Your task to perform on an android device: make emails show in primary in the gmail app Image 0: 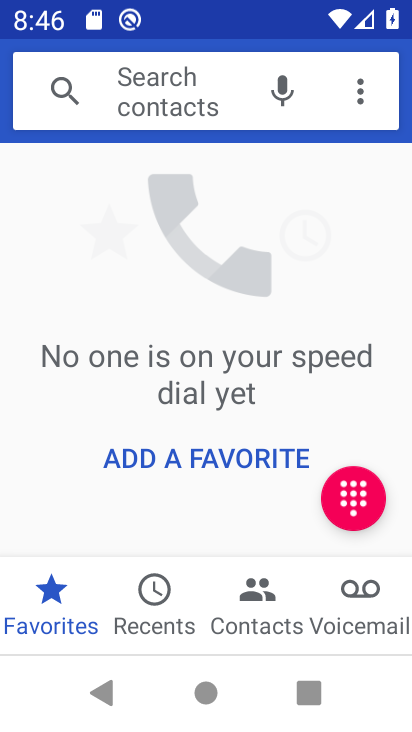
Step 0: press home button
Your task to perform on an android device: make emails show in primary in the gmail app Image 1: 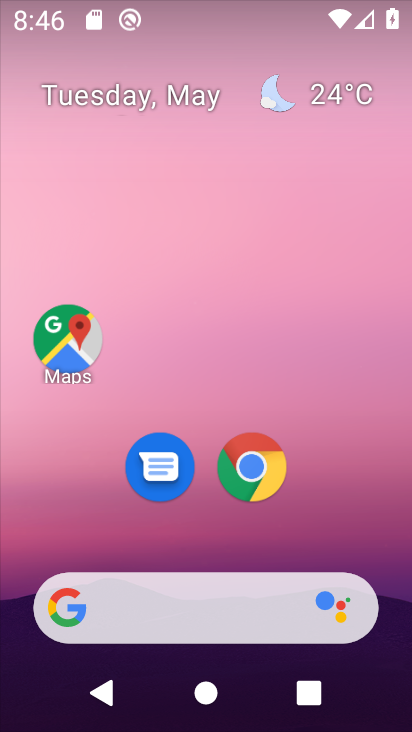
Step 1: drag from (399, 691) to (370, 277)
Your task to perform on an android device: make emails show in primary in the gmail app Image 2: 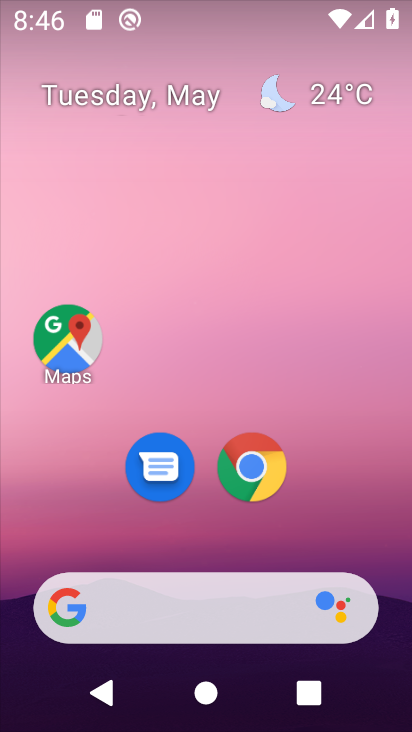
Step 2: drag from (380, 704) to (386, 265)
Your task to perform on an android device: make emails show in primary in the gmail app Image 3: 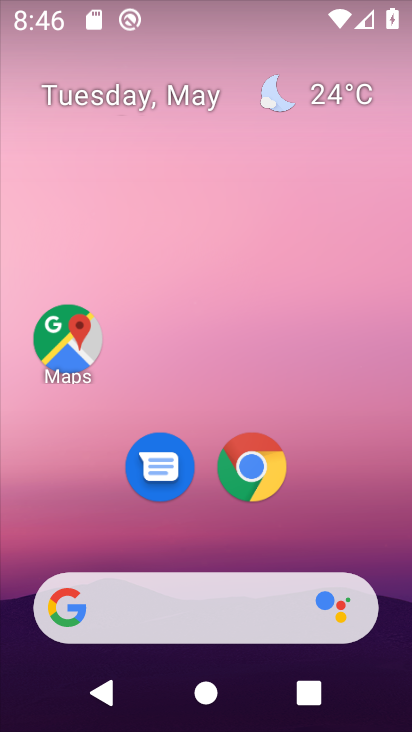
Step 3: click (369, 221)
Your task to perform on an android device: make emails show in primary in the gmail app Image 4: 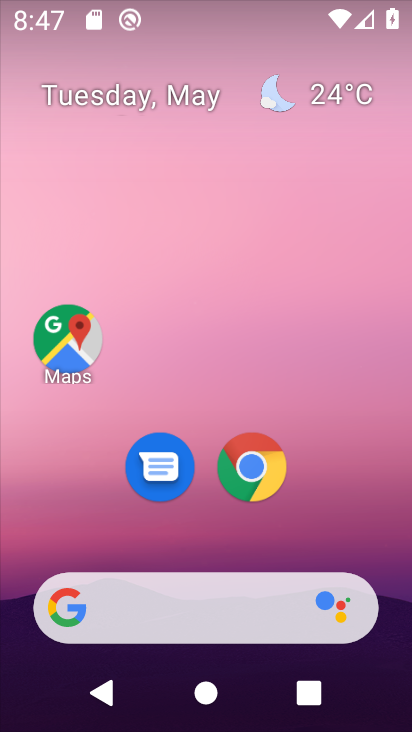
Step 4: drag from (386, 651) to (408, 282)
Your task to perform on an android device: make emails show in primary in the gmail app Image 5: 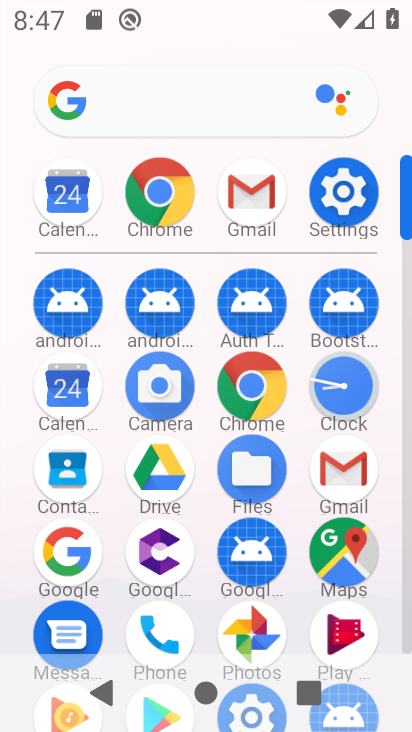
Step 5: click (236, 199)
Your task to perform on an android device: make emails show in primary in the gmail app Image 6: 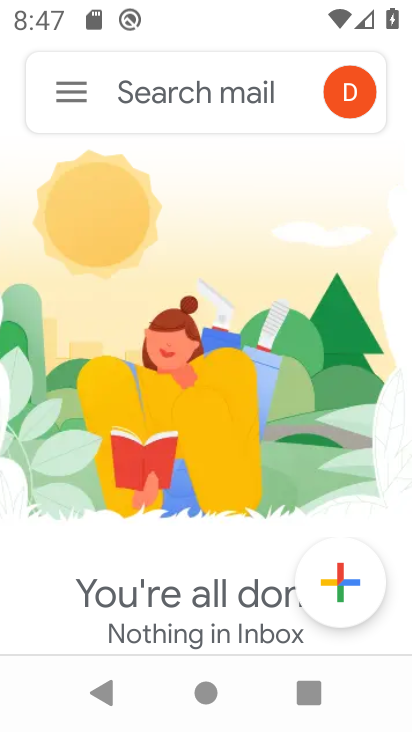
Step 6: click (62, 87)
Your task to perform on an android device: make emails show in primary in the gmail app Image 7: 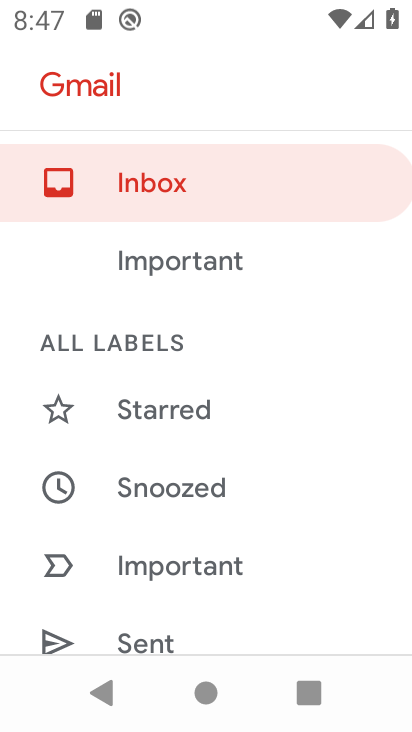
Step 7: drag from (300, 594) to (292, 228)
Your task to perform on an android device: make emails show in primary in the gmail app Image 8: 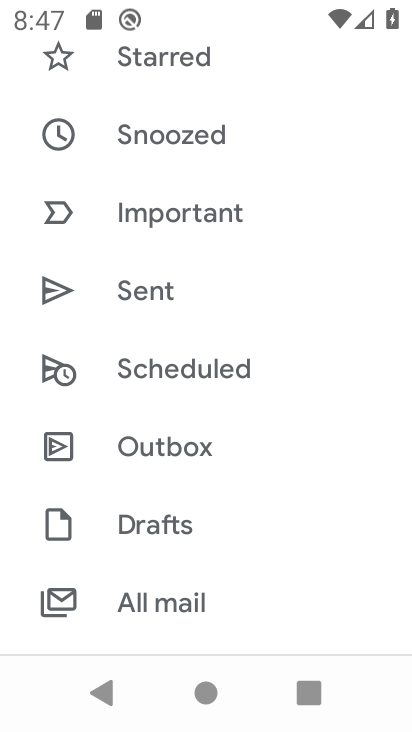
Step 8: drag from (303, 628) to (301, 267)
Your task to perform on an android device: make emails show in primary in the gmail app Image 9: 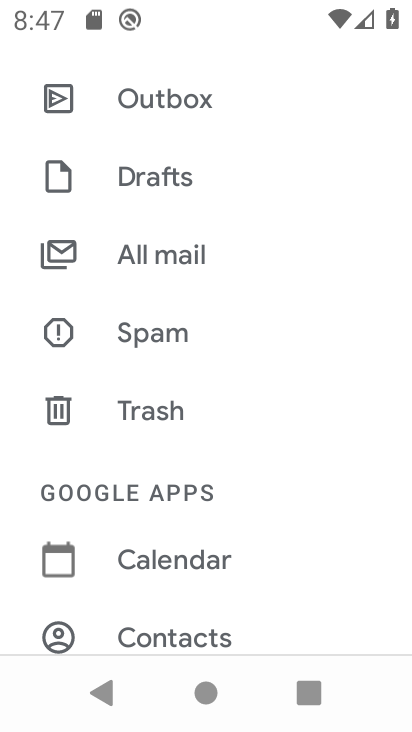
Step 9: drag from (290, 617) to (242, 177)
Your task to perform on an android device: make emails show in primary in the gmail app Image 10: 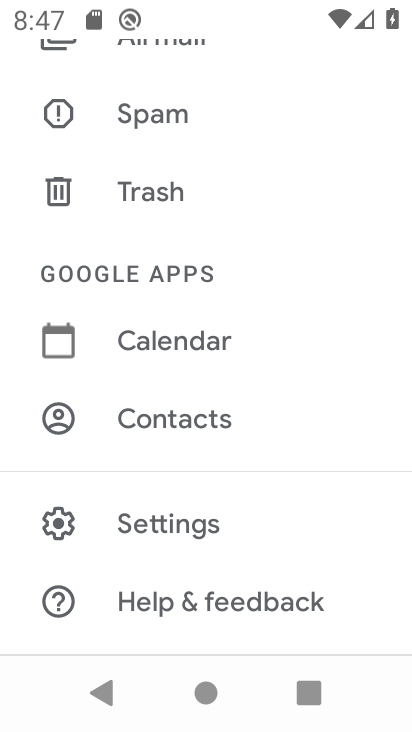
Step 10: click (189, 514)
Your task to perform on an android device: make emails show in primary in the gmail app Image 11: 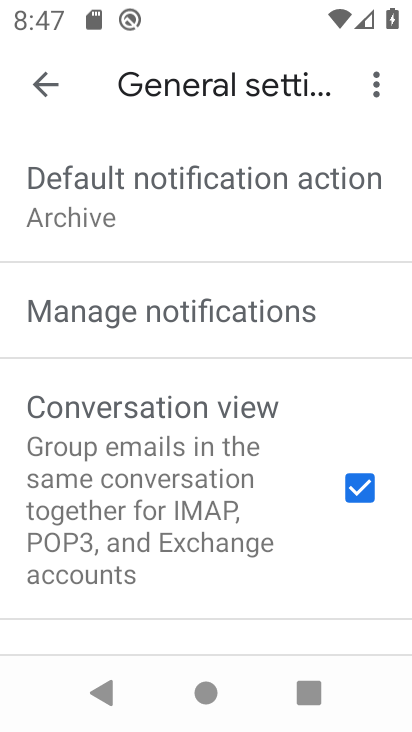
Step 11: click (48, 77)
Your task to perform on an android device: make emails show in primary in the gmail app Image 12: 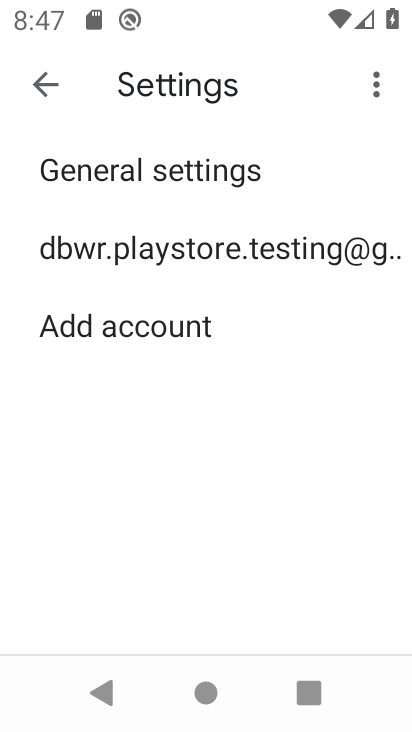
Step 12: click (107, 252)
Your task to perform on an android device: make emails show in primary in the gmail app Image 13: 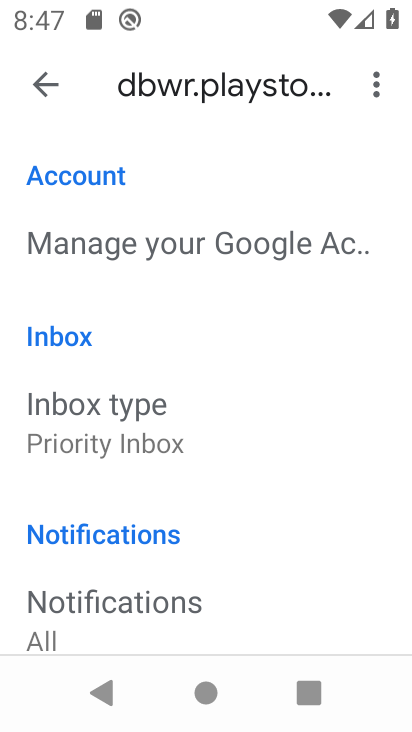
Step 13: click (81, 412)
Your task to perform on an android device: make emails show in primary in the gmail app Image 14: 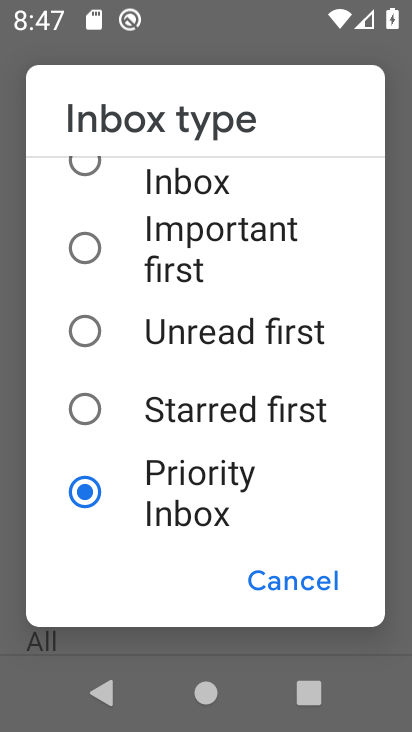
Step 14: drag from (139, 188) to (80, 547)
Your task to perform on an android device: make emails show in primary in the gmail app Image 15: 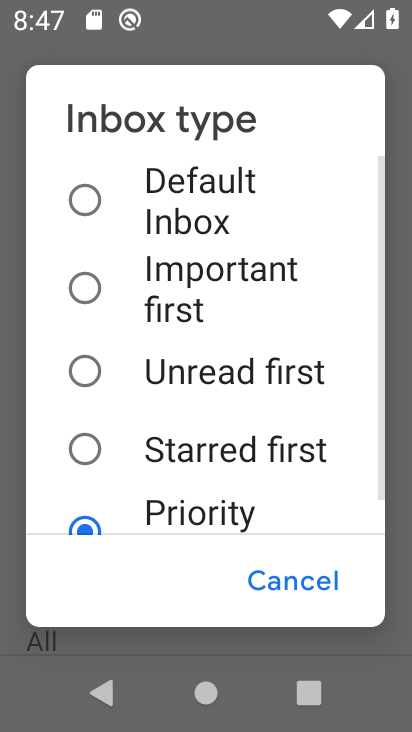
Step 15: click (88, 197)
Your task to perform on an android device: make emails show in primary in the gmail app Image 16: 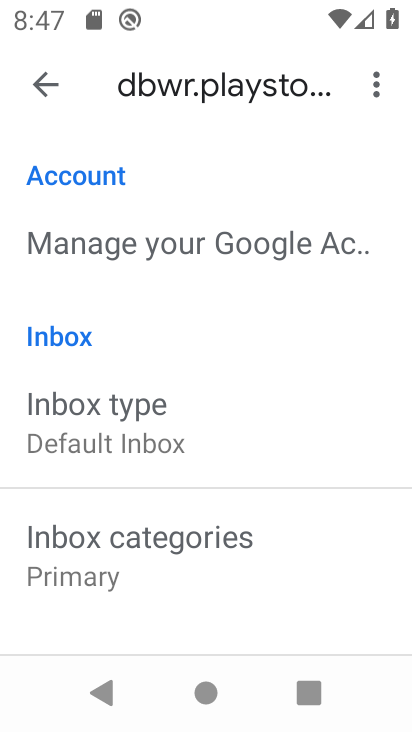
Step 16: click (83, 439)
Your task to perform on an android device: make emails show in primary in the gmail app Image 17: 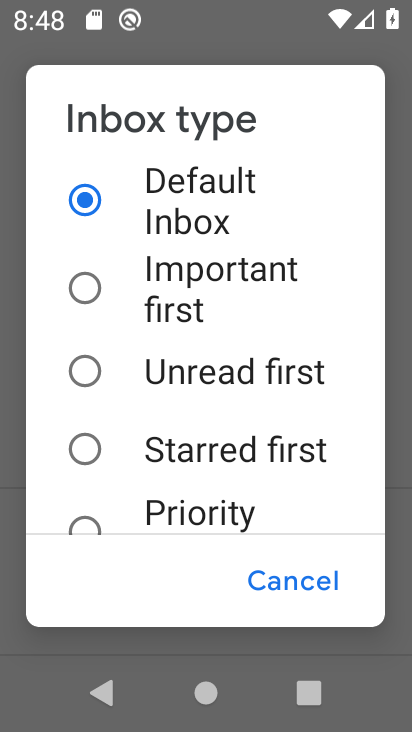
Step 17: click (319, 581)
Your task to perform on an android device: make emails show in primary in the gmail app Image 18: 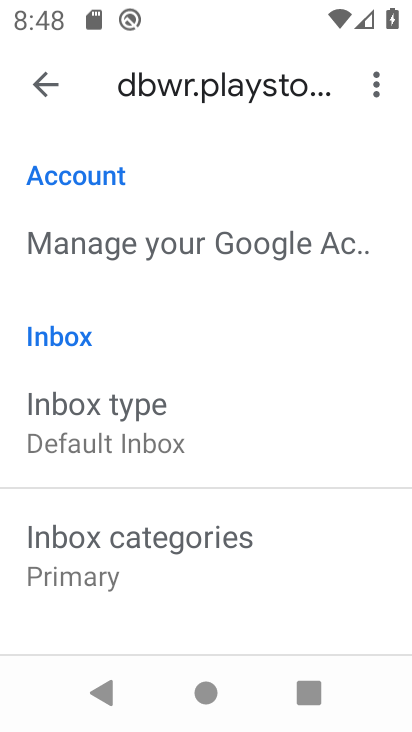
Step 18: click (81, 542)
Your task to perform on an android device: make emails show in primary in the gmail app Image 19: 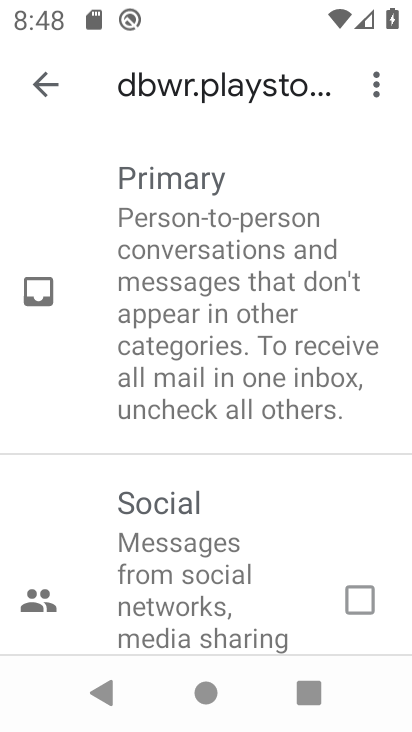
Step 19: click (36, 81)
Your task to perform on an android device: make emails show in primary in the gmail app Image 20: 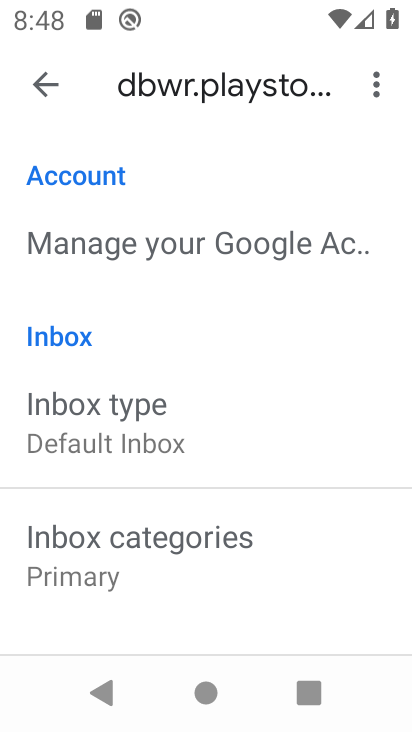
Step 20: task complete